Your task to perform on an android device: open app "Google Play Music" Image 0: 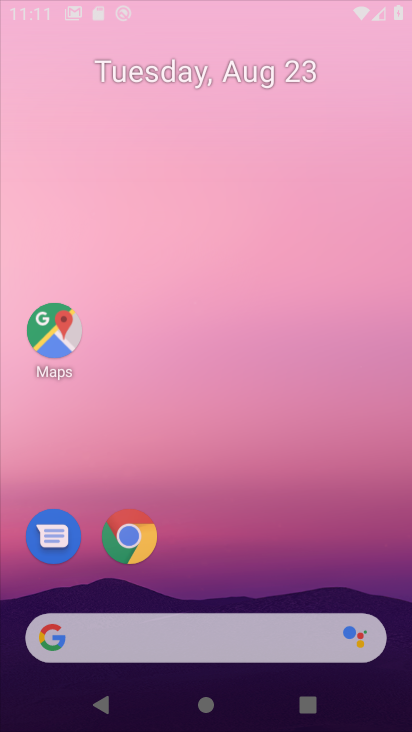
Step 0: press home button
Your task to perform on an android device: open app "Google Play Music" Image 1: 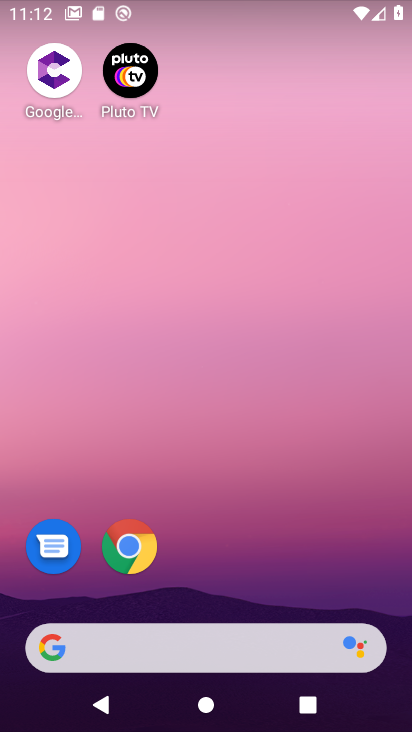
Step 1: drag from (234, 598) to (269, 187)
Your task to perform on an android device: open app "Google Play Music" Image 2: 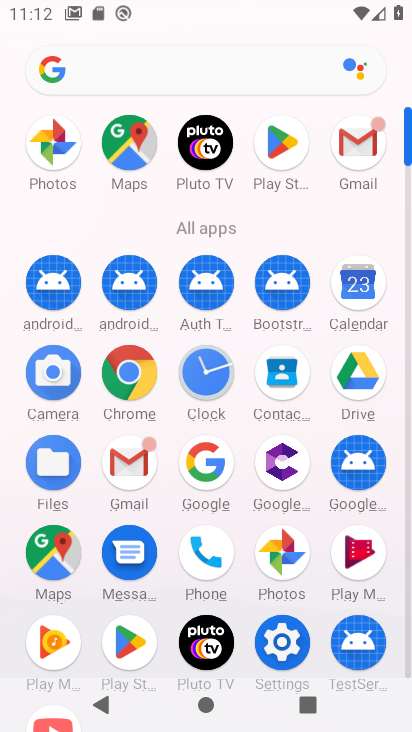
Step 2: click (288, 139)
Your task to perform on an android device: open app "Google Play Music" Image 3: 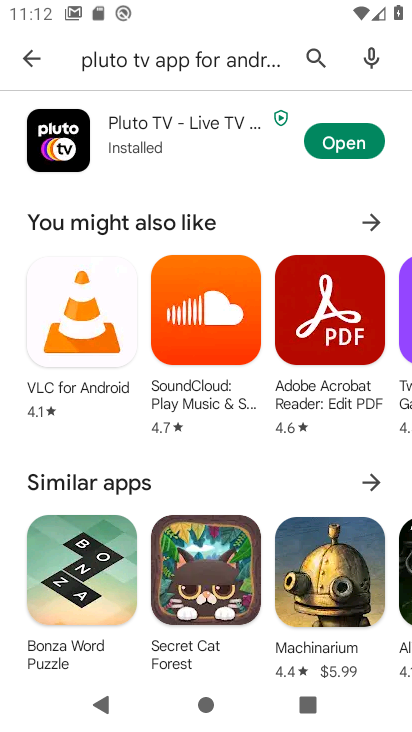
Step 3: click (28, 54)
Your task to perform on an android device: open app "Google Play Music" Image 4: 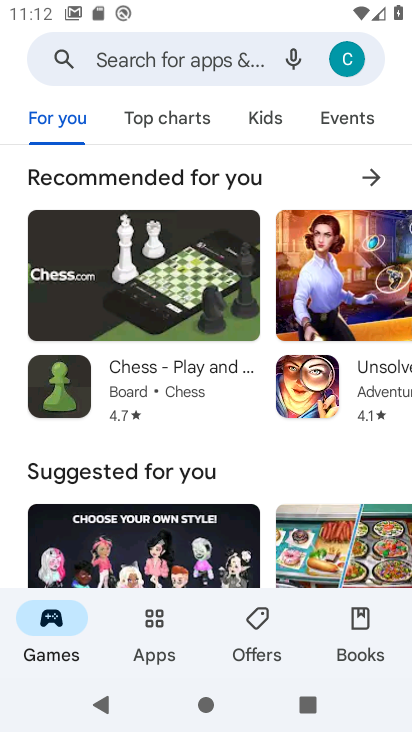
Step 4: click (148, 64)
Your task to perform on an android device: open app "Google Play Music" Image 5: 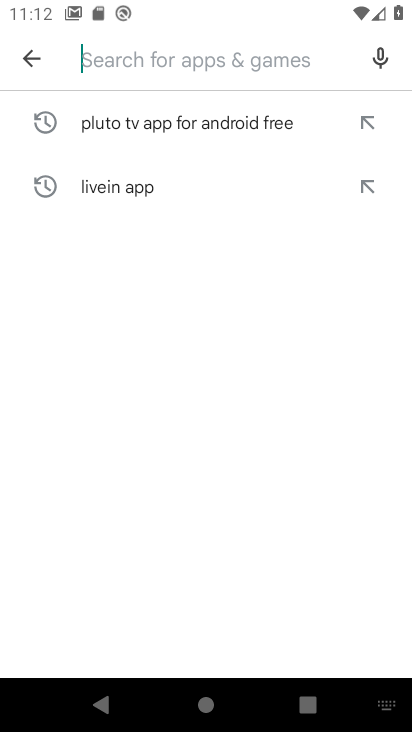
Step 5: type "Google Play Music "
Your task to perform on an android device: open app "Google Play Music" Image 6: 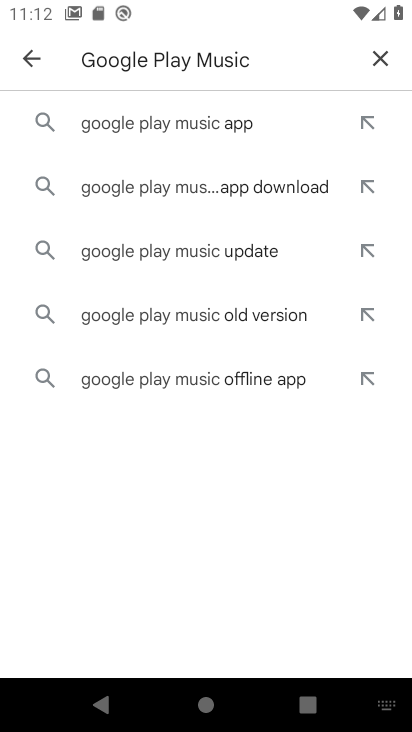
Step 6: click (116, 117)
Your task to perform on an android device: open app "Google Play Music" Image 7: 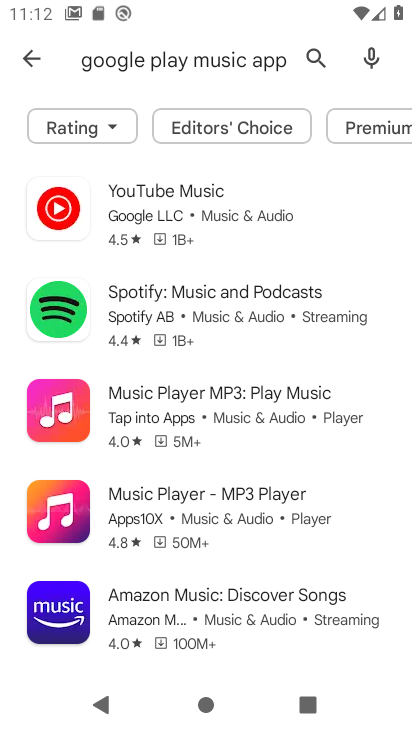
Step 7: click (149, 222)
Your task to perform on an android device: open app "Google Play Music" Image 8: 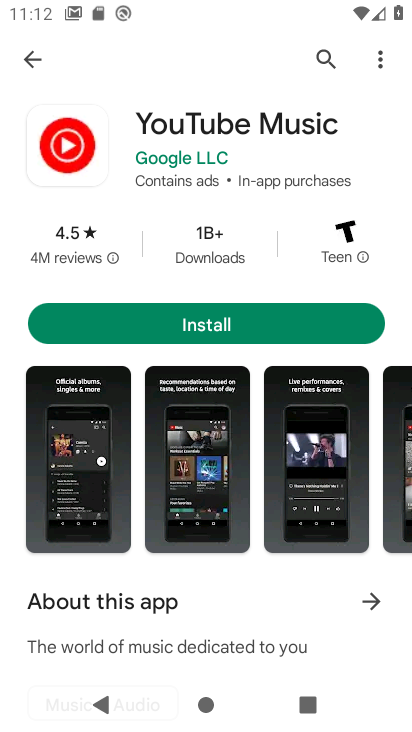
Step 8: click (178, 318)
Your task to perform on an android device: open app "Google Play Music" Image 9: 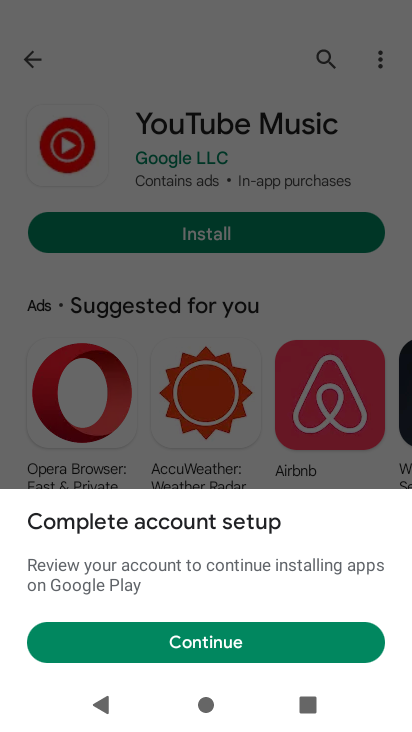
Step 9: task complete